Your task to perform on an android device: toggle wifi Image 0: 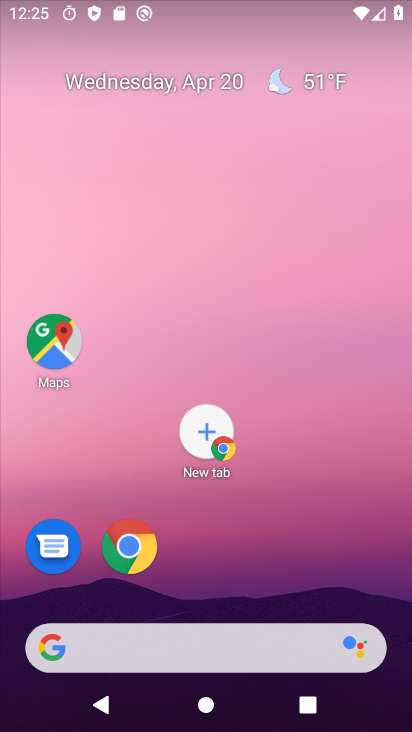
Step 0: drag from (181, 15) to (201, 612)
Your task to perform on an android device: toggle wifi Image 1: 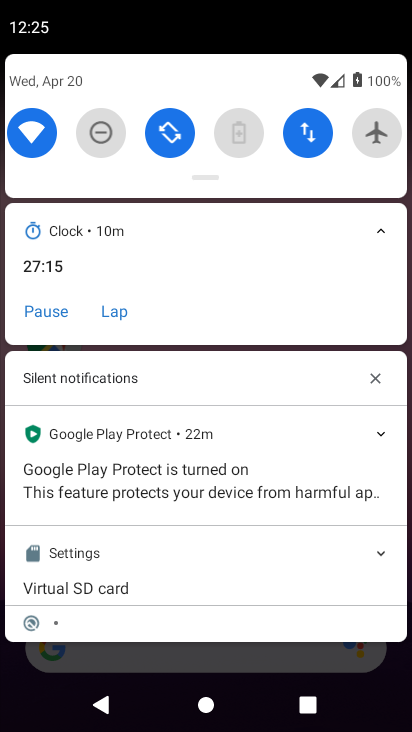
Step 1: click (28, 138)
Your task to perform on an android device: toggle wifi Image 2: 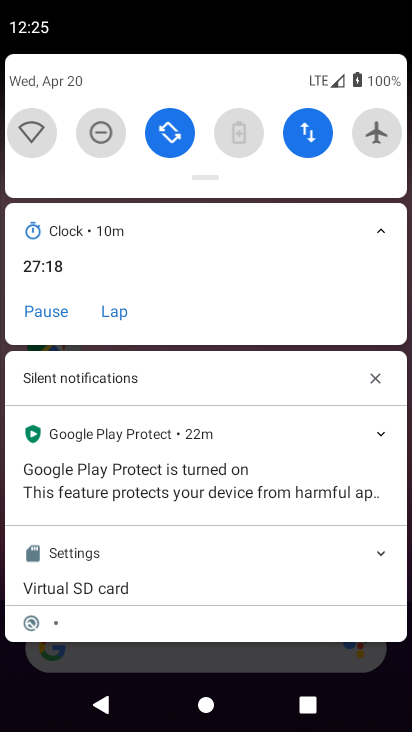
Step 2: click (28, 138)
Your task to perform on an android device: toggle wifi Image 3: 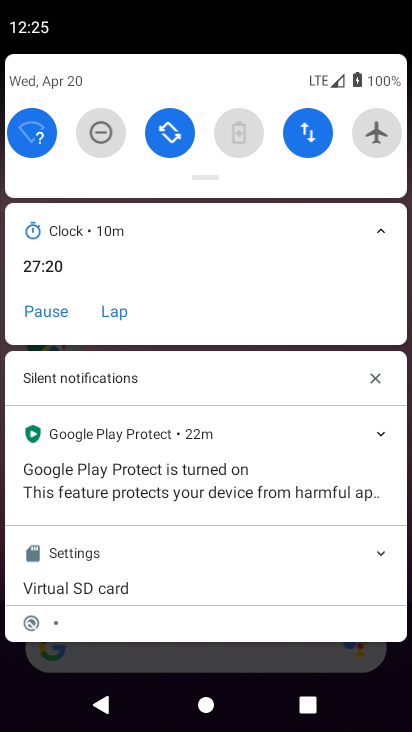
Step 3: click (28, 138)
Your task to perform on an android device: toggle wifi Image 4: 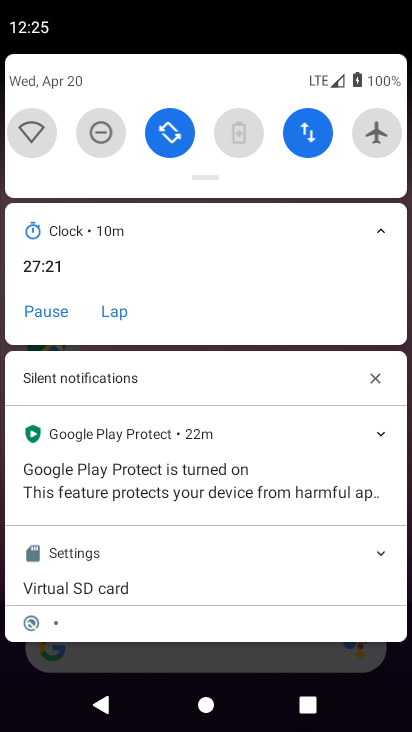
Step 4: click (28, 138)
Your task to perform on an android device: toggle wifi Image 5: 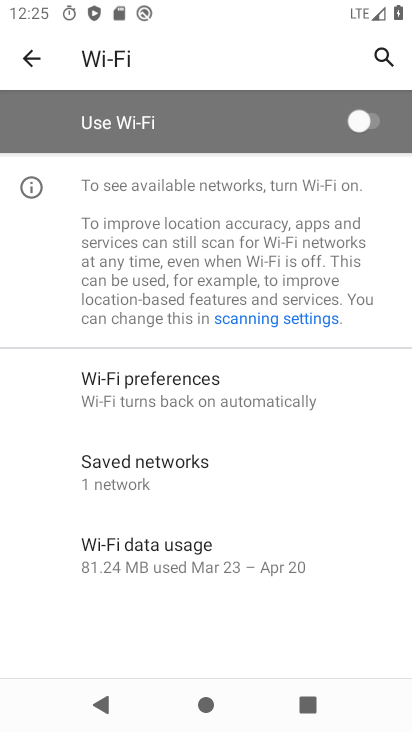
Step 5: click (381, 122)
Your task to perform on an android device: toggle wifi Image 6: 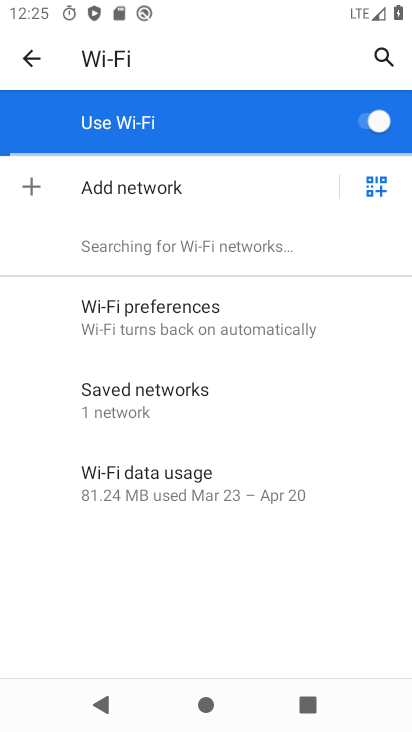
Step 6: task complete